Your task to perform on an android device: Find coffee shops on Maps Image 0: 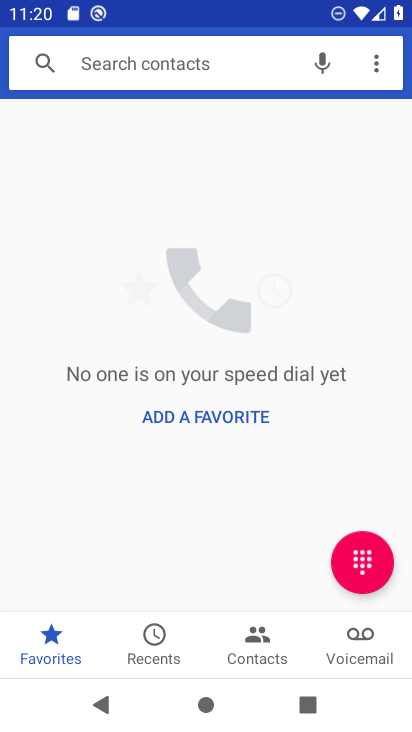
Step 0: press back button
Your task to perform on an android device: Find coffee shops on Maps Image 1: 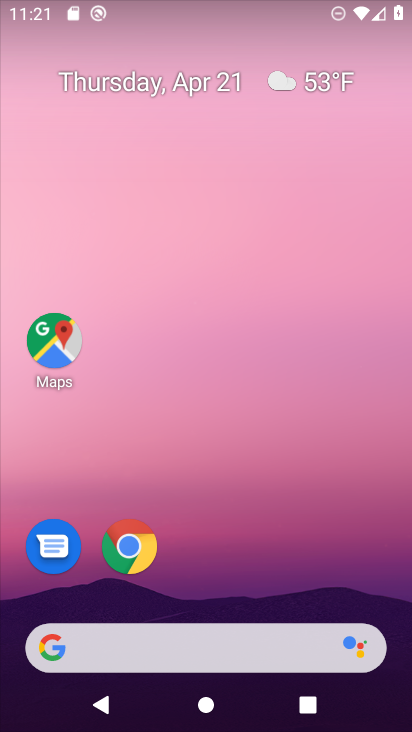
Step 1: click (50, 345)
Your task to perform on an android device: Find coffee shops on Maps Image 2: 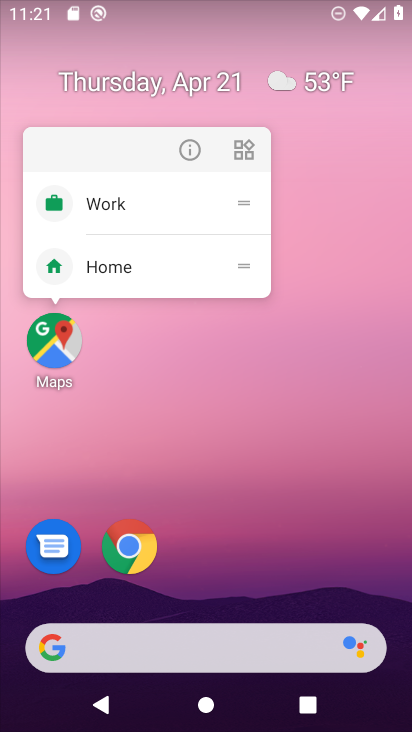
Step 2: click (50, 345)
Your task to perform on an android device: Find coffee shops on Maps Image 3: 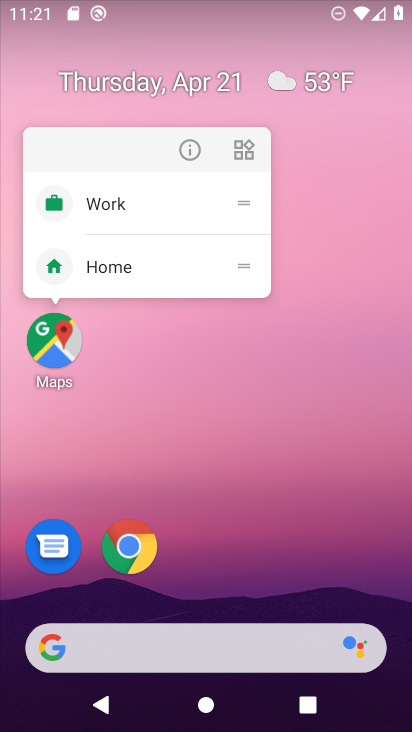
Step 3: click (53, 338)
Your task to perform on an android device: Find coffee shops on Maps Image 4: 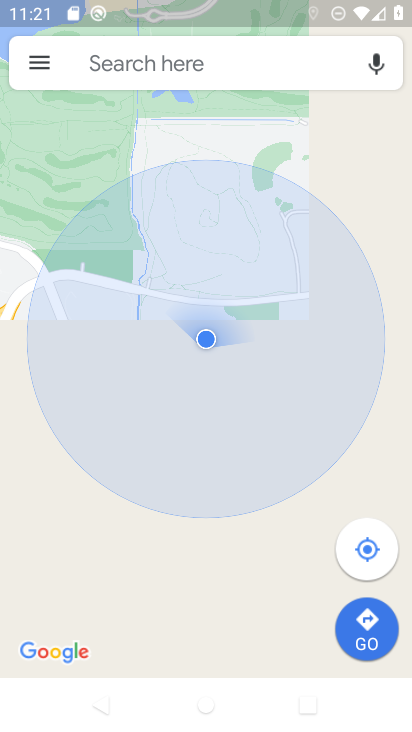
Step 4: click (127, 63)
Your task to perform on an android device: Find coffee shops on Maps Image 5: 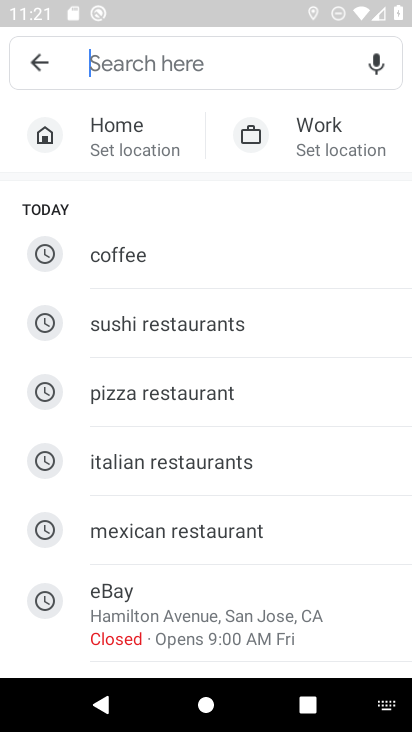
Step 5: click (121, 249)
Your task to perform on an android device: Find coffee shops on Maps Image 6: 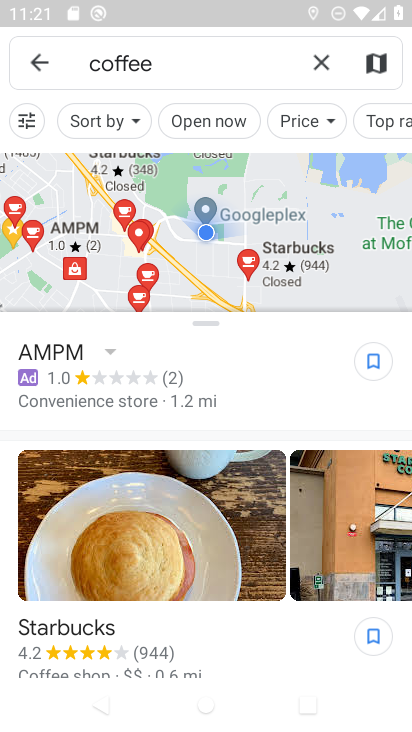
Step 6: task complete